Your task to perform on an android device: Search for vegetarian restaurants on Maps Image 0: 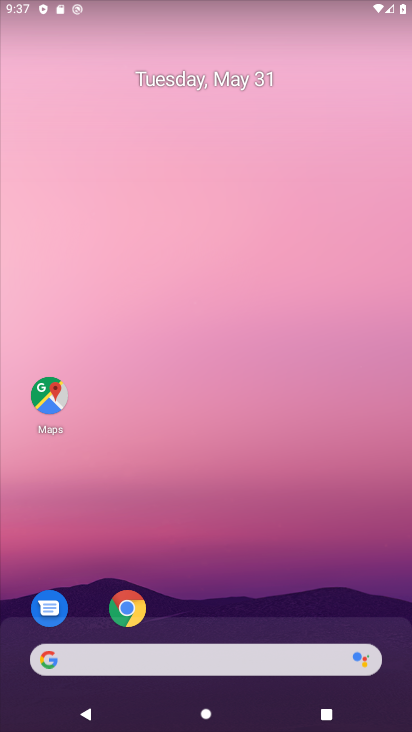
Step 0: click (65, 396)
Your task to perform on an android device: Search for vegetarian restaurants on Maps Image 1: 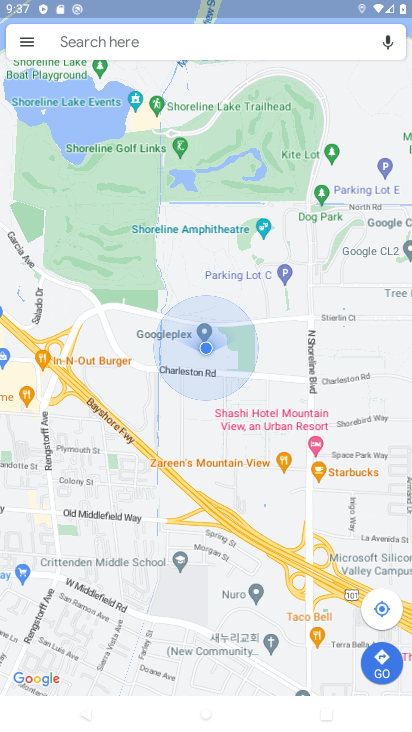
Step 1: click (257, 38)
Your task to perform on an android device: Search for vegetarian restaurants on Maps Image 2: 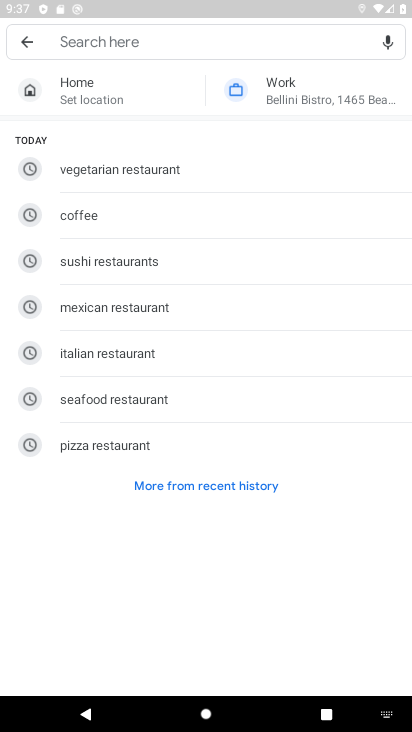
Step 2: click (81, 165)
Your task to perform on an android device: Search for vegetarian restaurants on Maps Image 3: 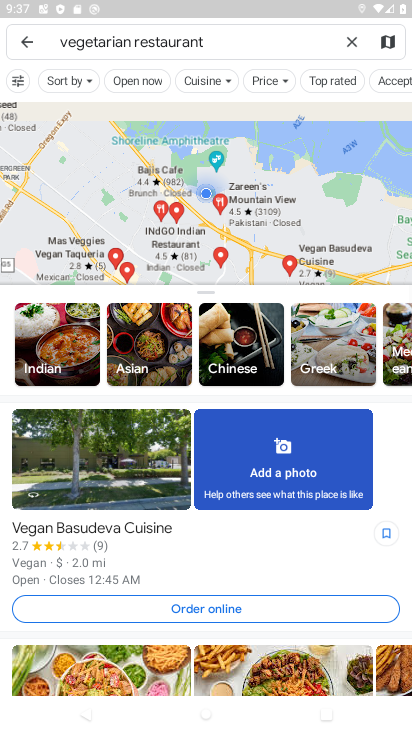
Step 3: task complete